Your task to perform on an android device: turn notification dots off Image 0: 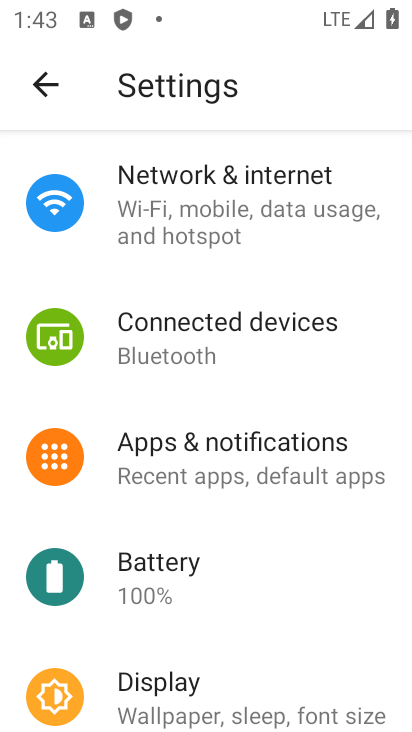
Step 0: press home button
Your task to perform on an android device: turn notification dots off Image 1: 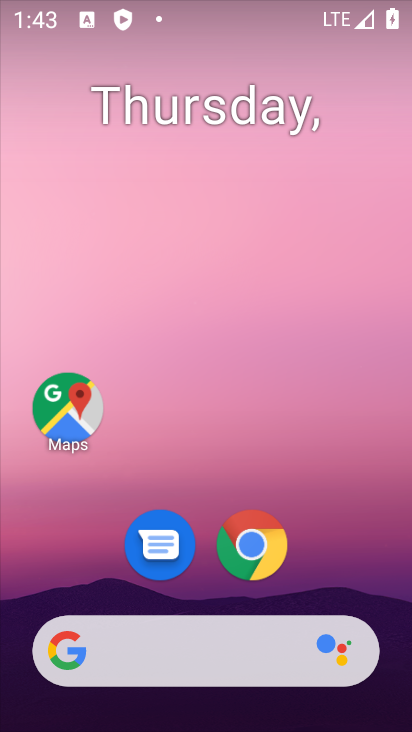
Step 1: drag from (269, 678) to (328, 165)
Your task to perform on an android device: turn notification dots off Image 2: 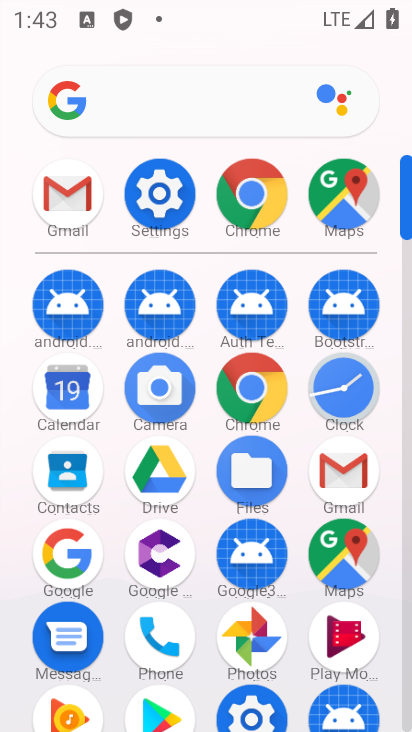
Step 2: click (166, 183)
Your task to perform on an android device: turn notification dots off Image 3: 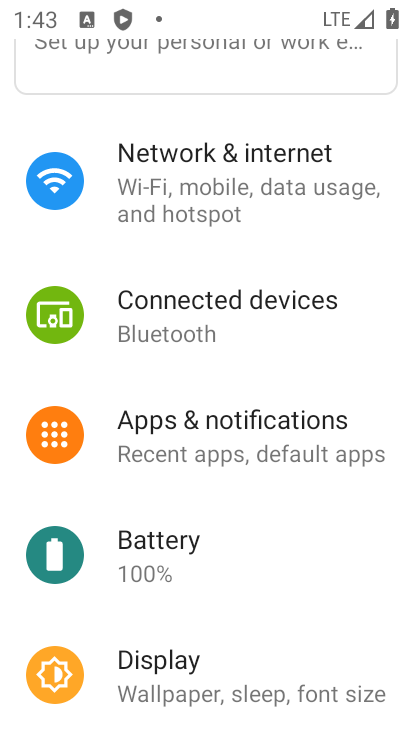
Step 3: click (221, 447)
Your task to perform on an android device: turn notification dots off Image 4: 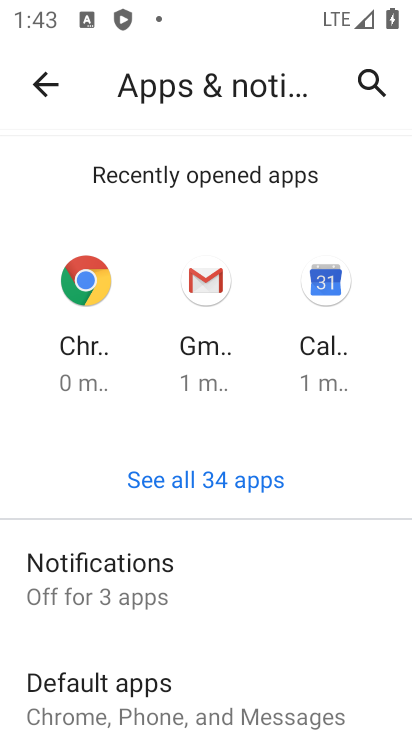
Step 4: drag from (296, 658) to (301, 237)
Your task to perform on an android device: turn notification dots off Image 5: 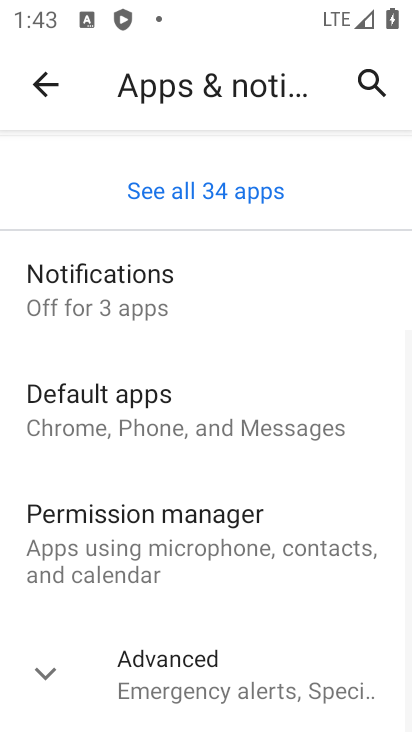
Step 5: click (148, 294)
Your task to perform on an android device: turn notification dots off Image 6: 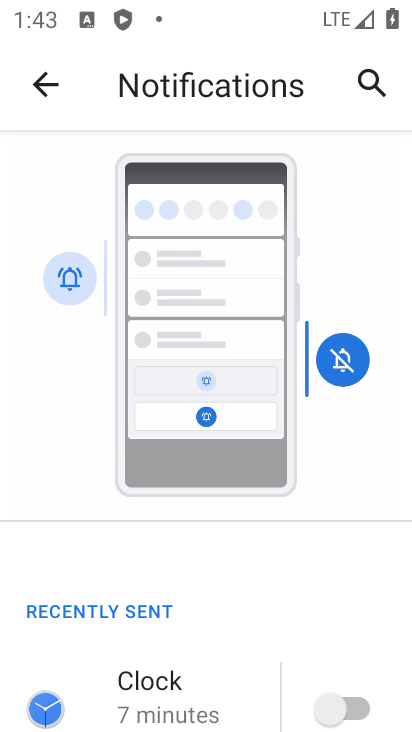
Step 6: drag from (246, 683) to (277, 123)
Your task to perform on an android device: turn notification dots off Image 7: 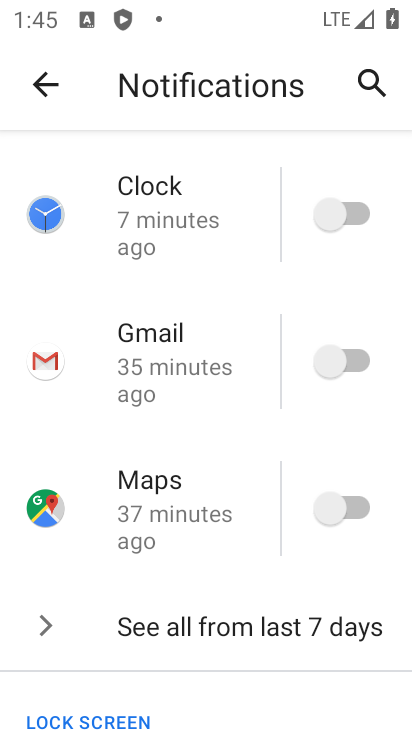
Step 7: drag from (222, 616) to (199, 15)
Your task to perform on an android device: turn notification dots off Image 8: 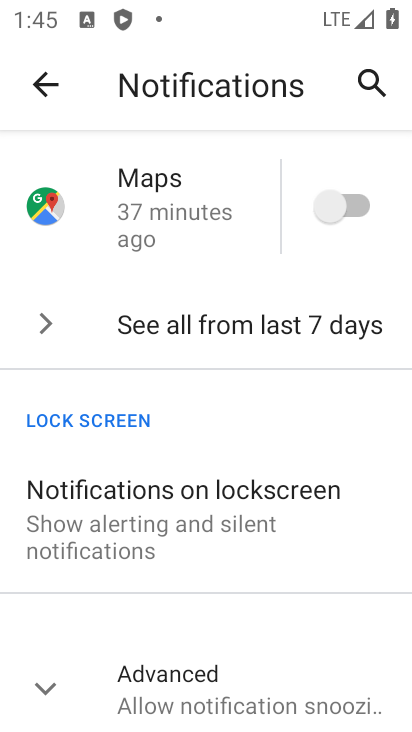
Step 8: click (187, 692)
Your task to perform on an android device: turn notification dots off Image 9: 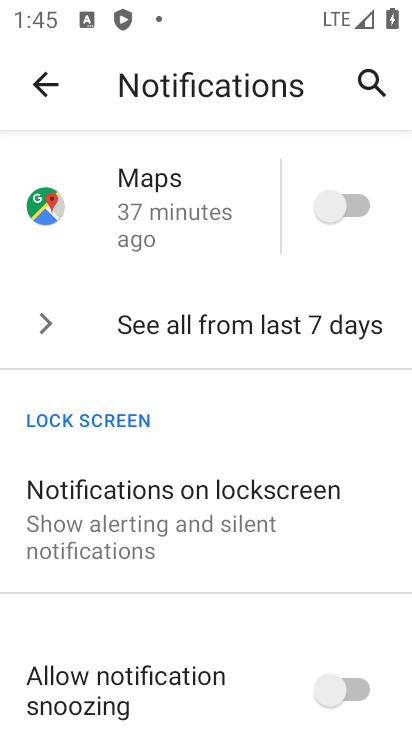
Step 9: task complete